Your task to perform on an android device: Open the phone app and click the voicemail tab. Image 0: 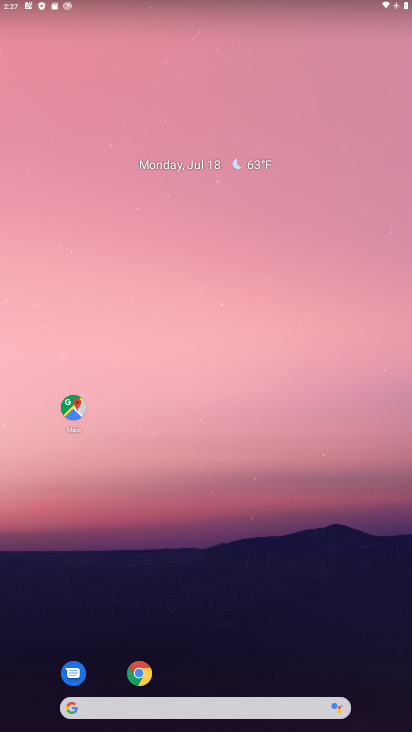
Step 0: drag from (164, 643) to (140, 212)
Your task to perform on an android device: Open the phone app and click the voicemail tab. Image 1: 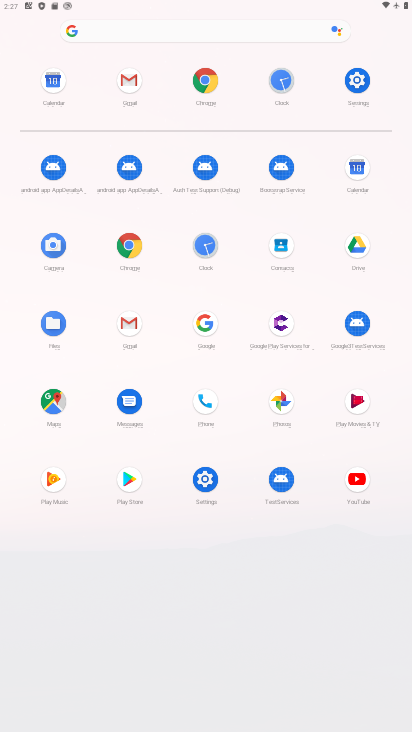
Step 1: click (204, 404)
Your task to perform on an android device: Open the phone app and click the voicemail tab. Image 2: 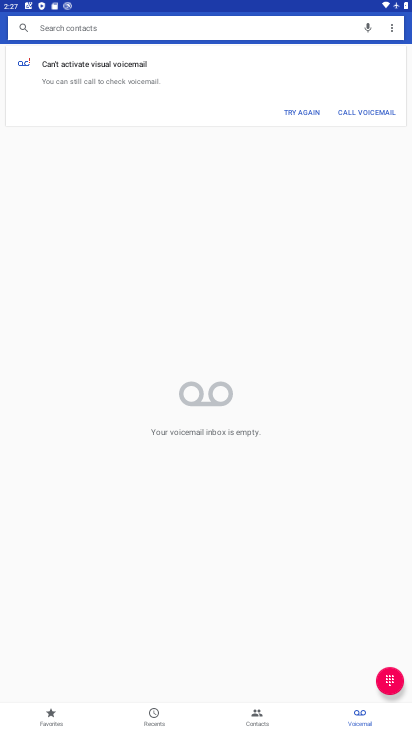
Step 2: click (353, 712)
Your task to perform on an android device: Open the phone app and click the voicemail tab. Image 3: 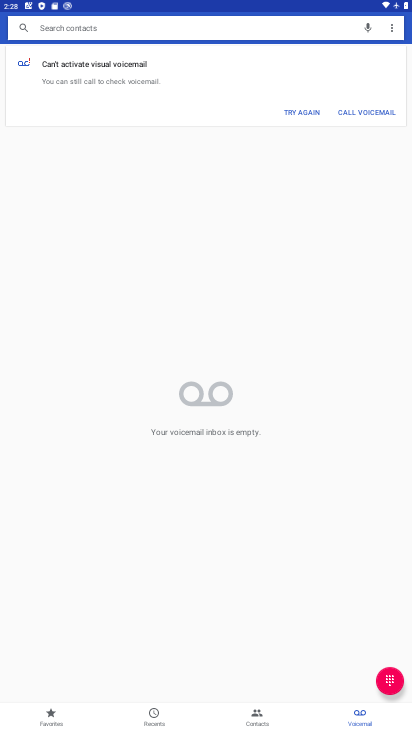
Step 3: task complete